Your task to perform on an android device: open app "Move to iOS" (install if not already installed) and go to login screen Image 0: 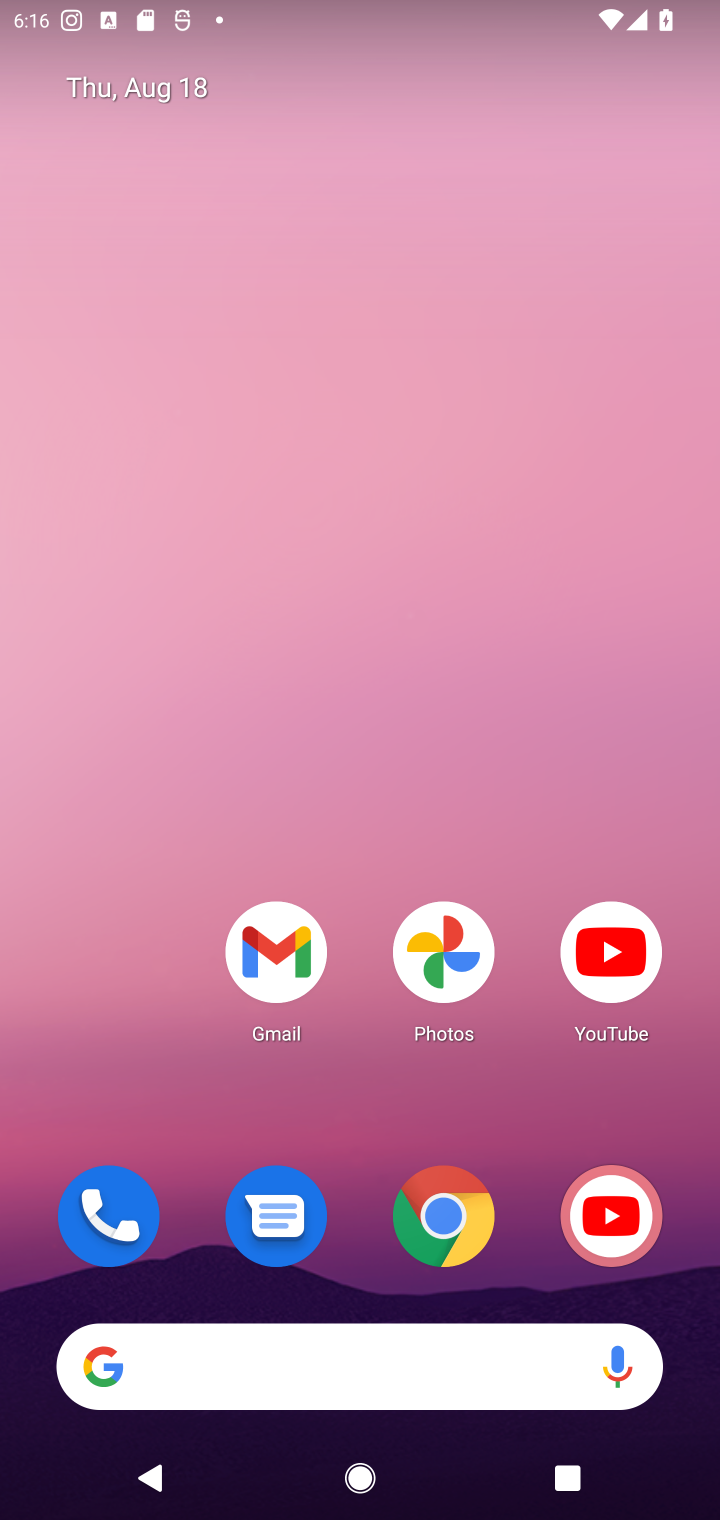
Step 0: drag from (511, 1080) to (463, 262)
Your task to perform on an android device: open app "Move to iOS" (install if not already installed) and go to login screen Image 1: 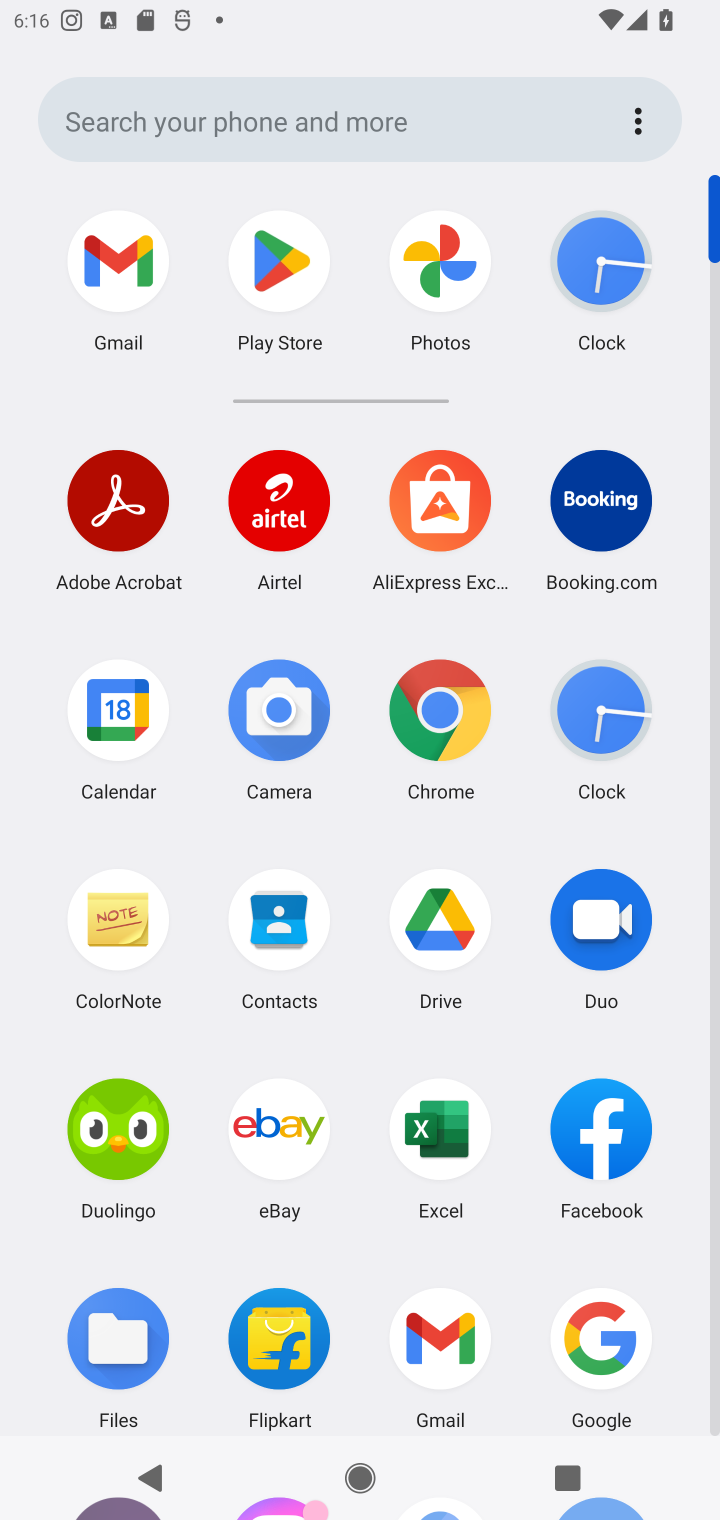
Step 1: click (292, 276)
Your task to perform on an android device: open app "Move to iOS" (install if not already installed) and go to login screen Image 2: 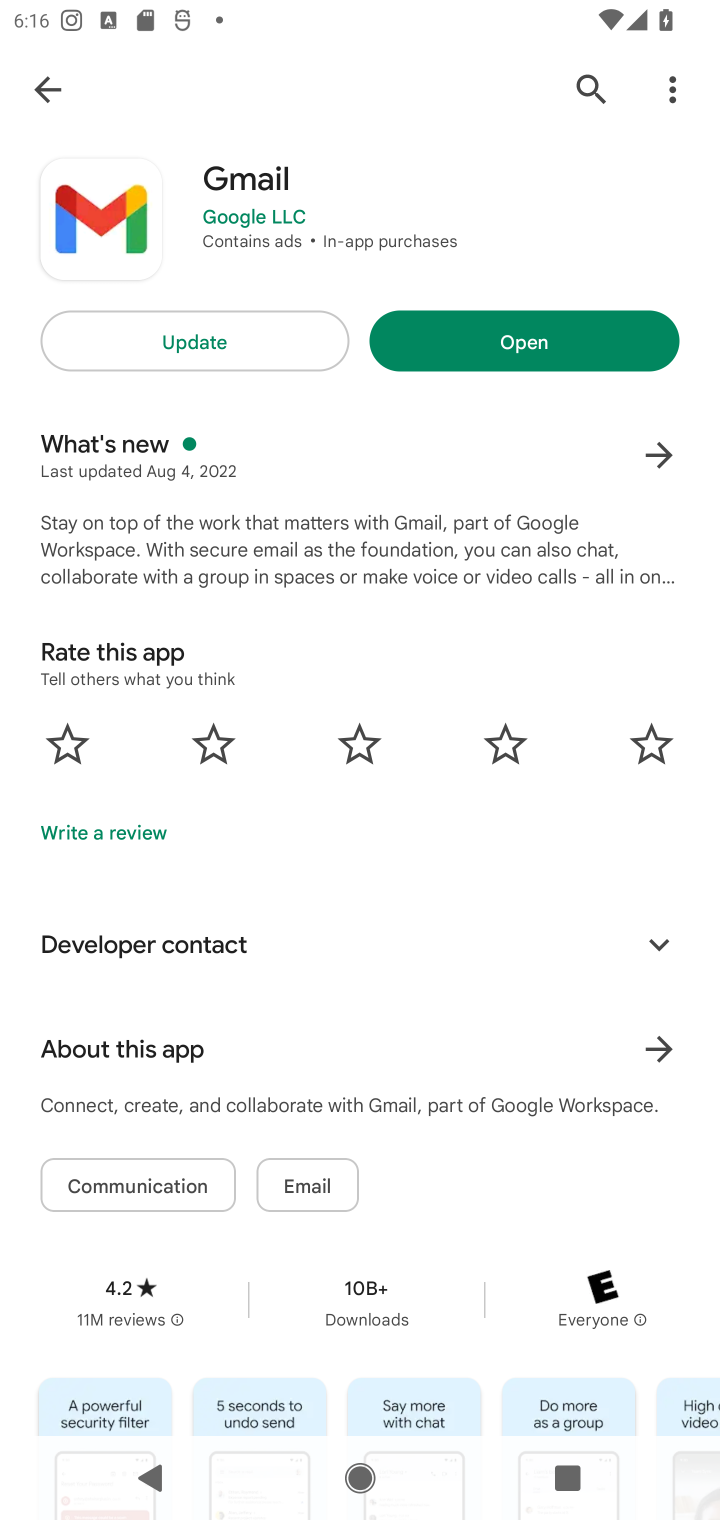
Step 2: click (578, 92)
Your task to perform on an android device: open app "Move to iOS" (install if not already installed) and go to login screen Image 3: 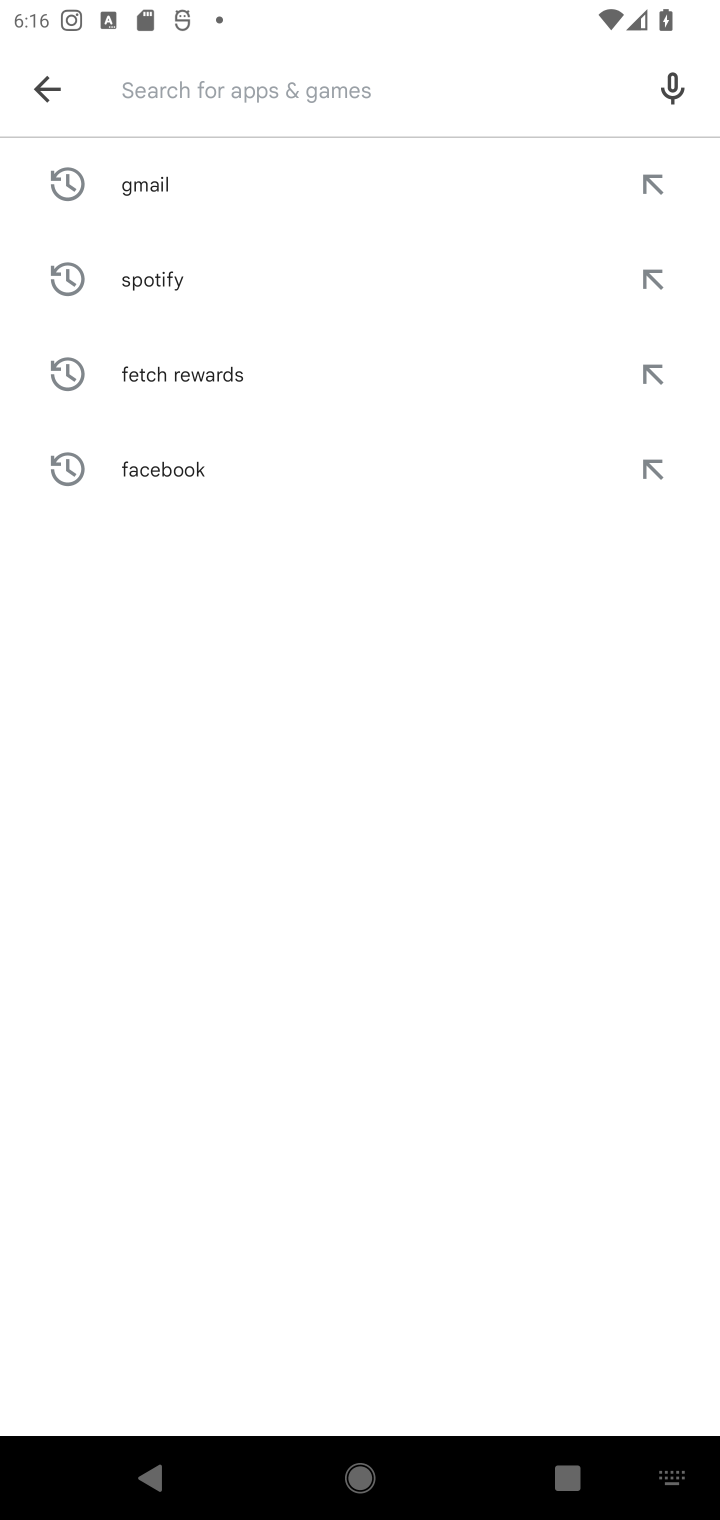
Step 3: type "Move to iOS"
Your task to perform on an android device: open app "Move to iOS" (install if not already installed) and go to login screen Image 4: 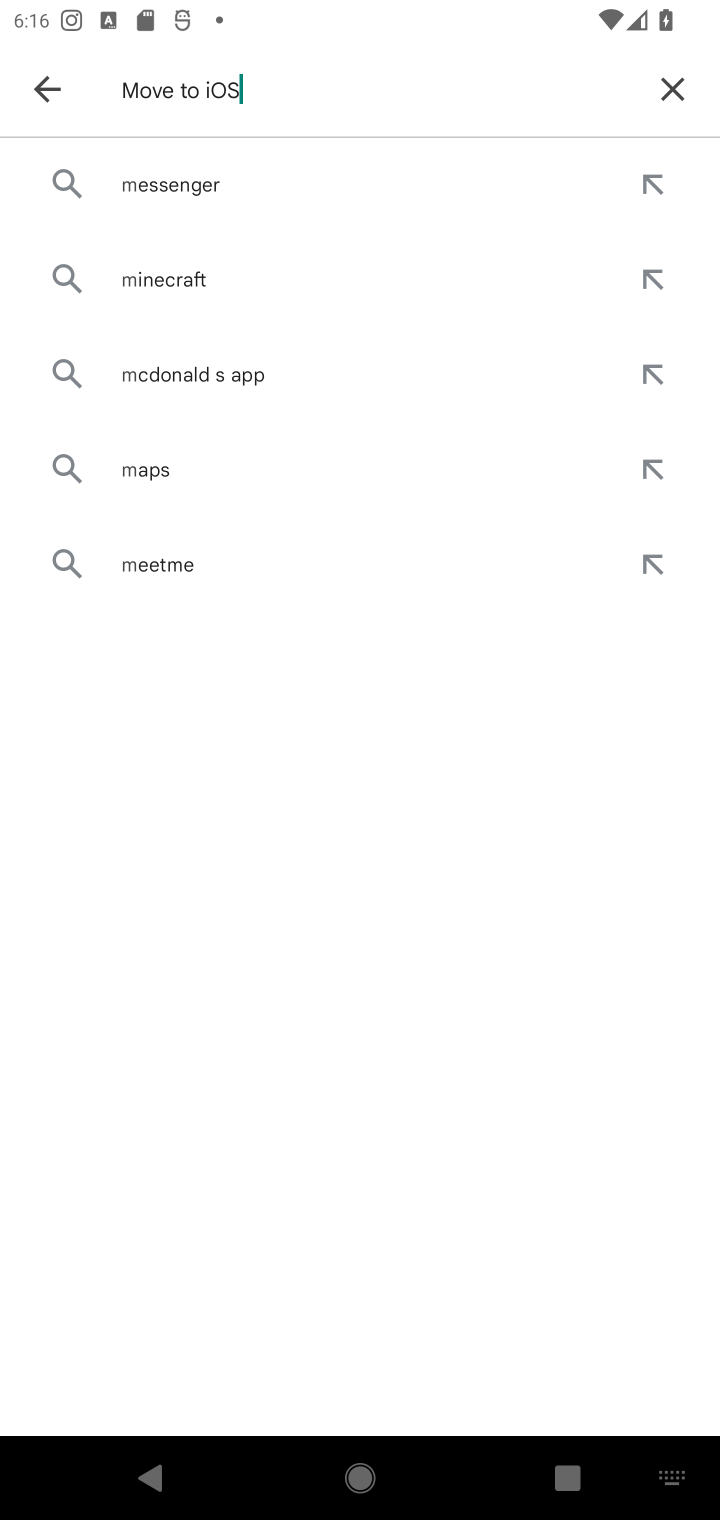
Step 4: type ""
Your task to perform on an android device: open app "Move to iOS" (install if not already installed) and go to login screen Image 5: 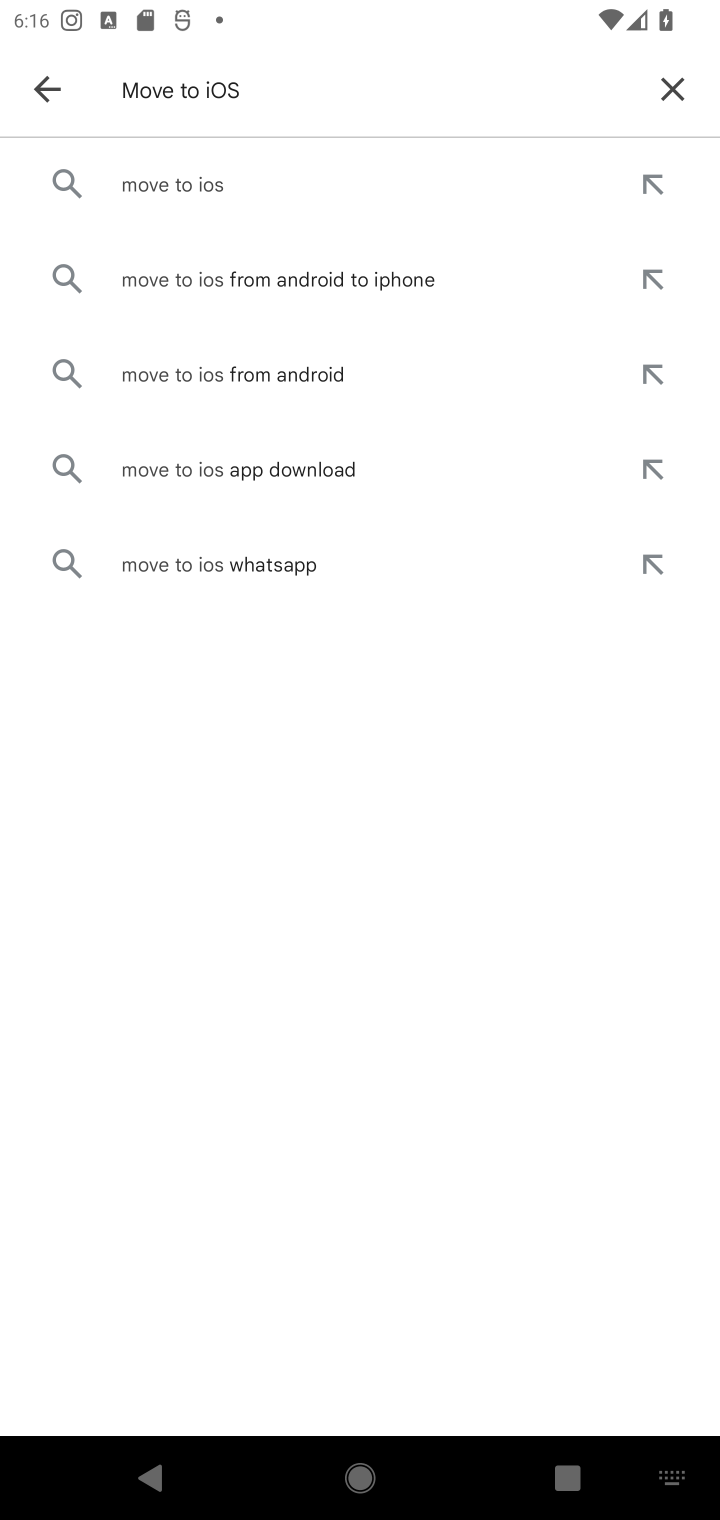
Step 5: click (209, 200)
Your task to perform on an android device: open app "Move to iOS" (install if not already installed) and go to login screen Image 6: 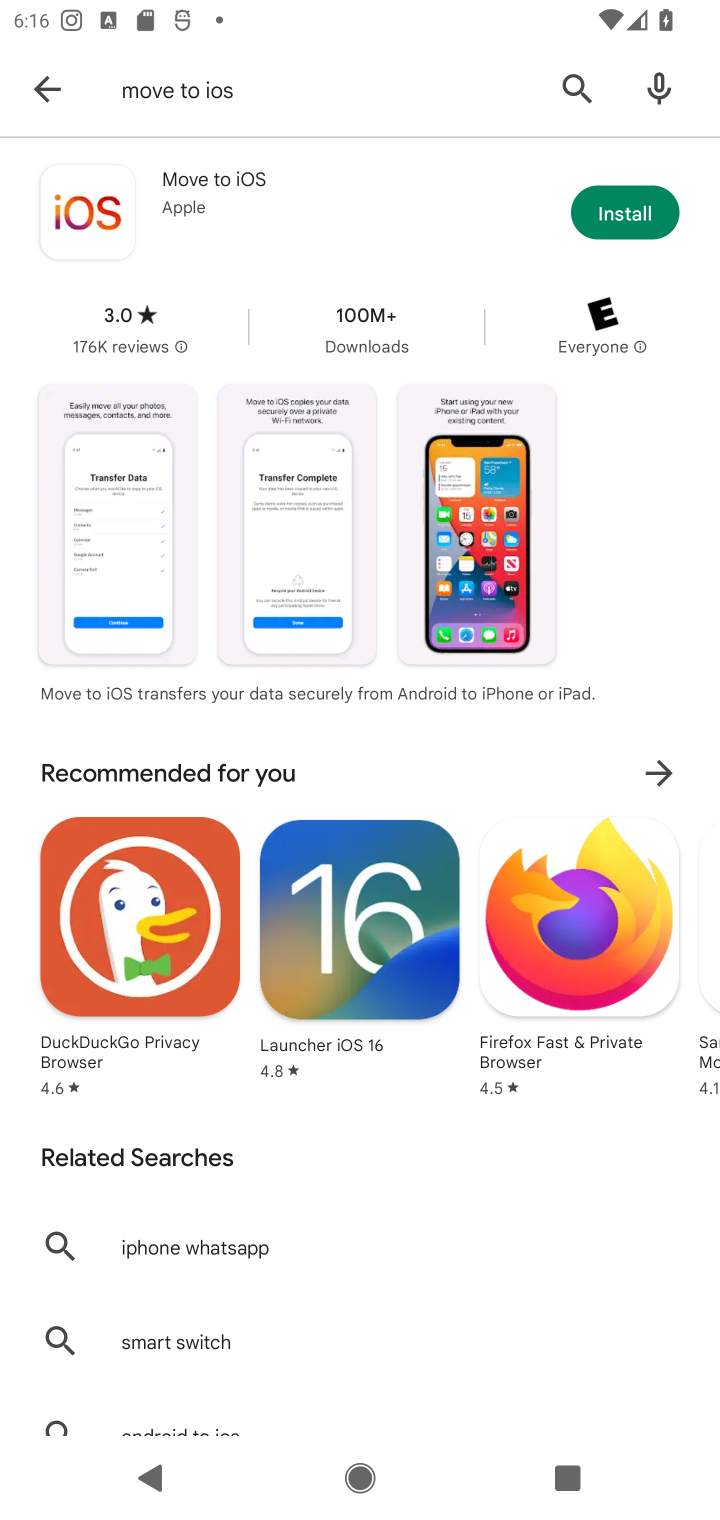
Step 6: click (622, 216)
Your task to perform on an android device: open app "Move to iOS" (install if not already installed) and go to login screen Image 7: 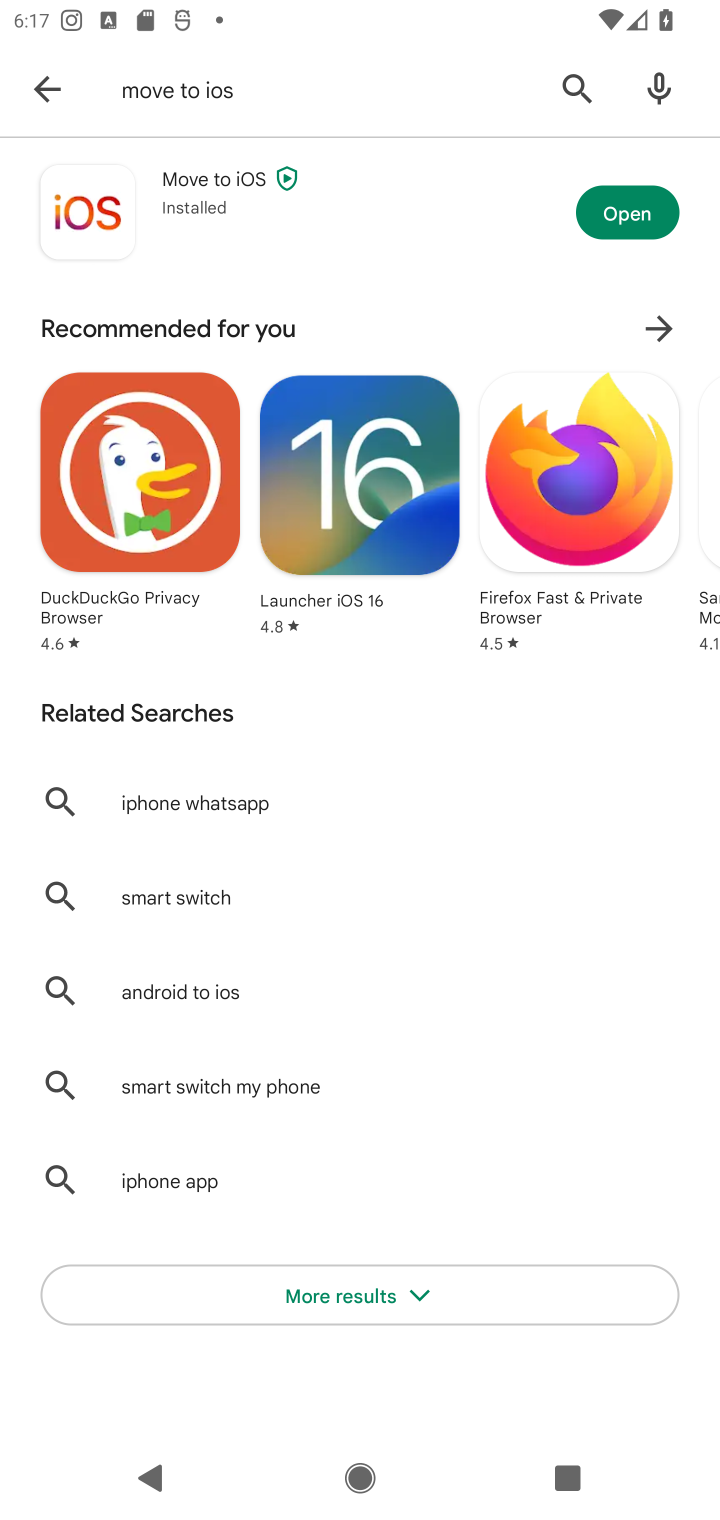
Step 7: click (654, 218)
Your task to perform on an android device: open app "Move to iOS" (install if not already installed) and go to login screen Image 8: 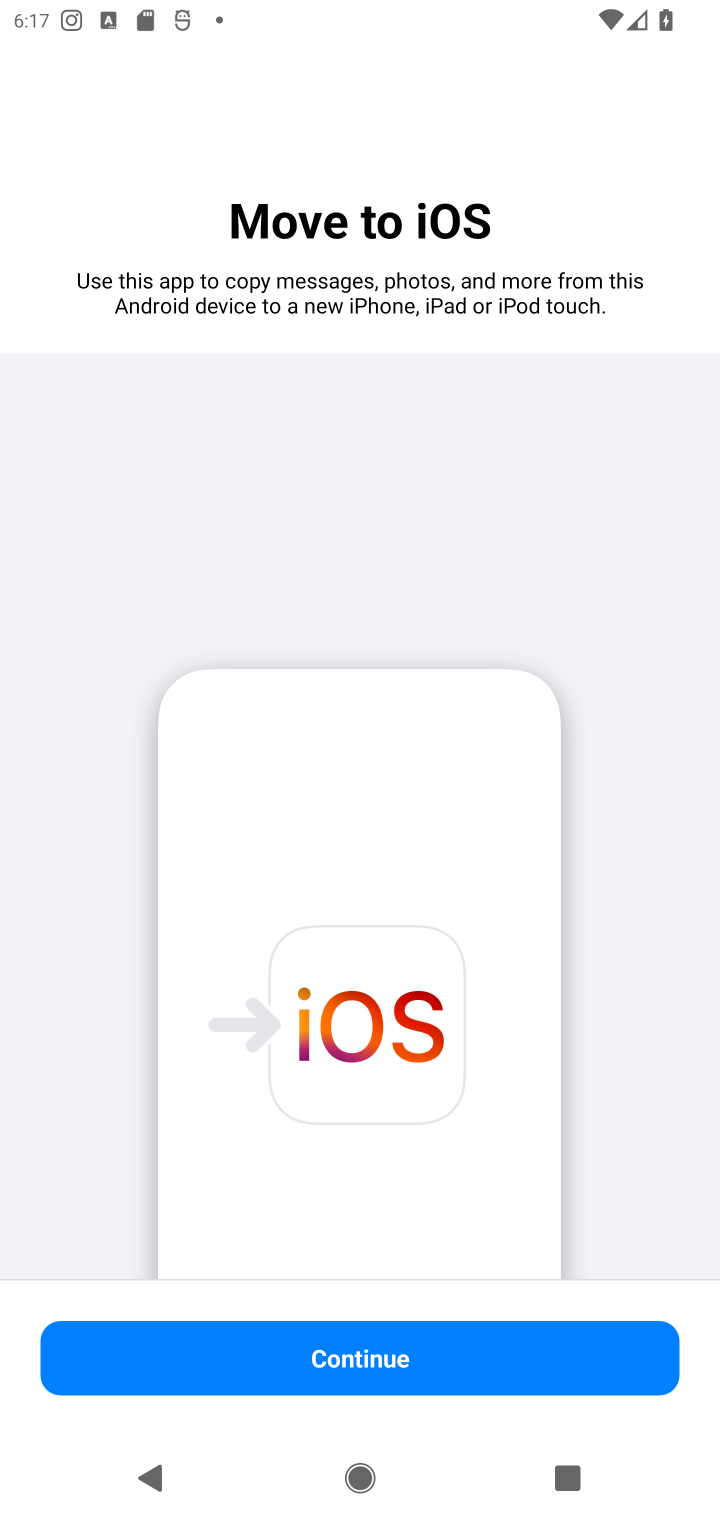
Step 8: task complete